Your task to perform on an android device: turn on location history Image 0: 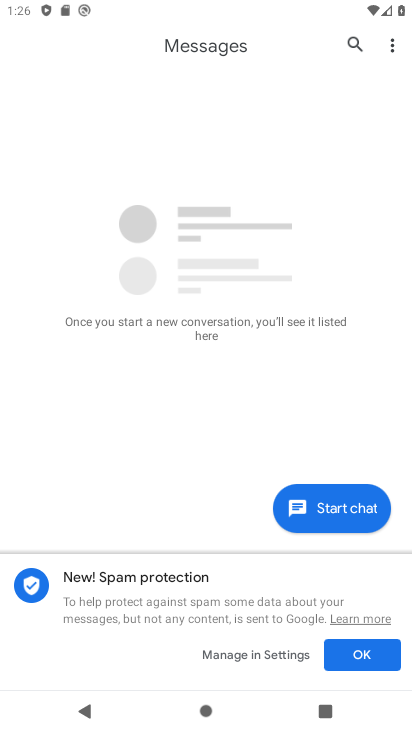
Step 0: press home button
Your task to perform on an android device: turn on location history Image 1: 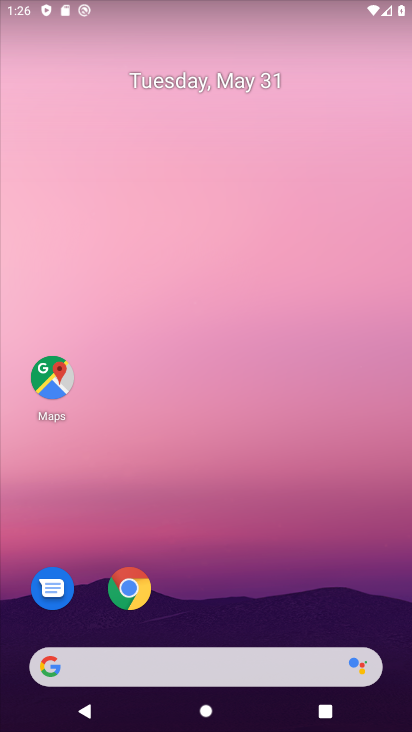
Step 1: drag from (209, 627) to (129, 154)
Your task to perform on an android device: turn on location history Image 2: 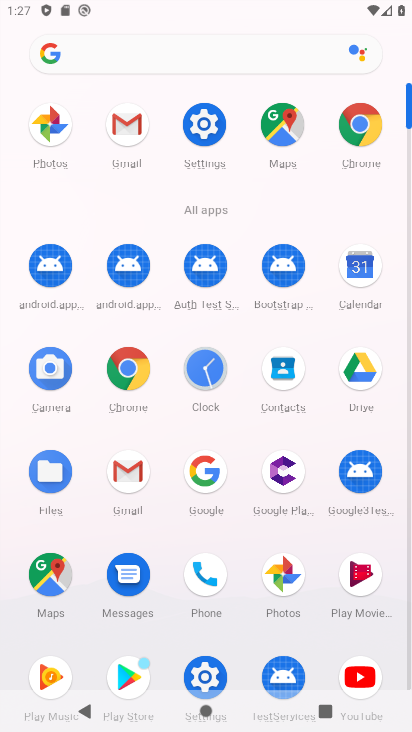
Step 2: click (293, 130)
Your task to perform on an android device: turn on location history Image 3: 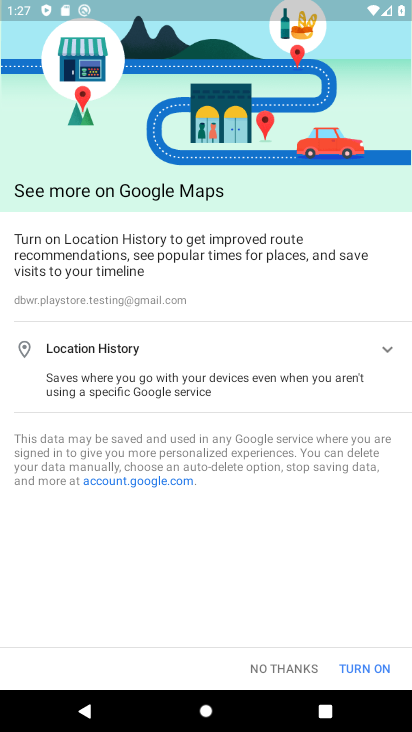
Step 3: click (383, 671)
Your task to perform on an android device: turn on location history Image 4: 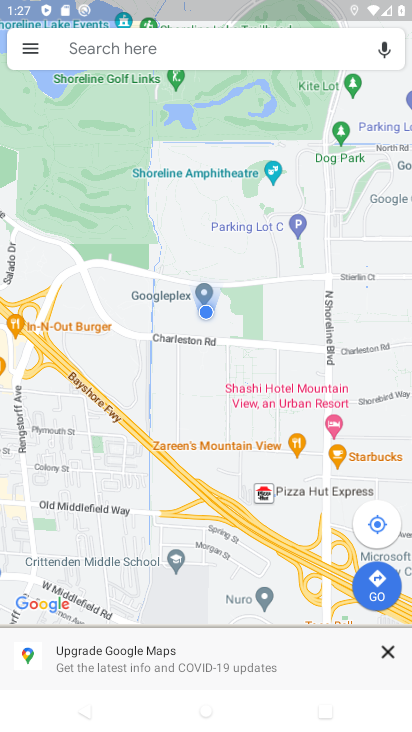
Step 4: click (33, 48)
Your task to perform on an android device: turn on location history Image 5: 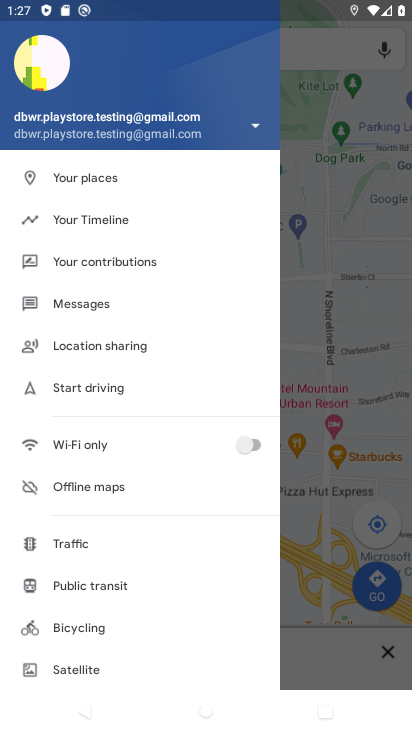
Step 5: click (95, 230)
Your task to perform on an android device: turn on location history Image 6: 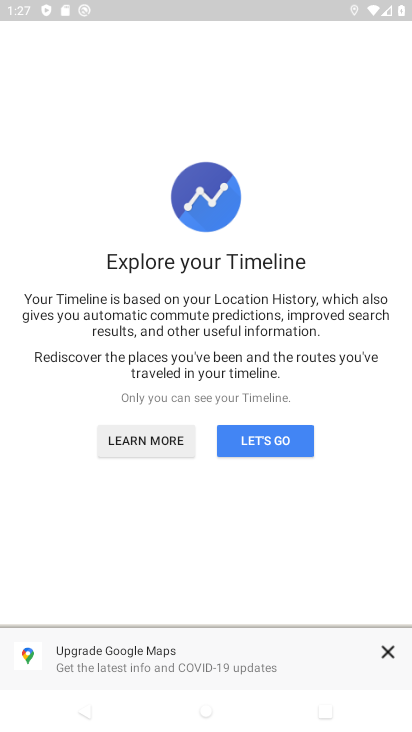
Step 6: click (252, 439)
Your task to perform on an android device: turn on location history Image 7: 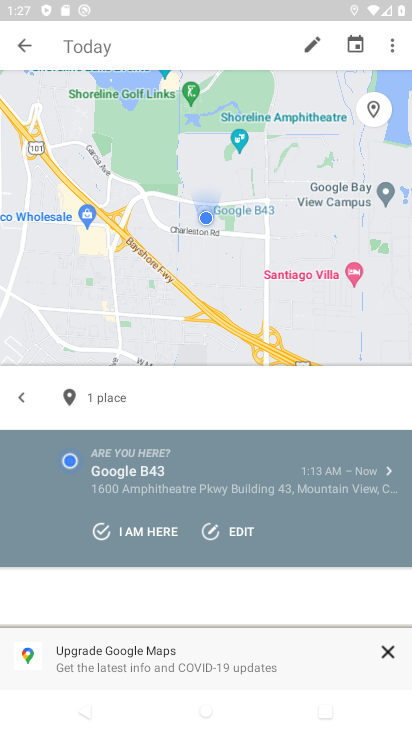
Step 7: click (396, 45)
Your task to perform on an android device: turn on location history Image 8: 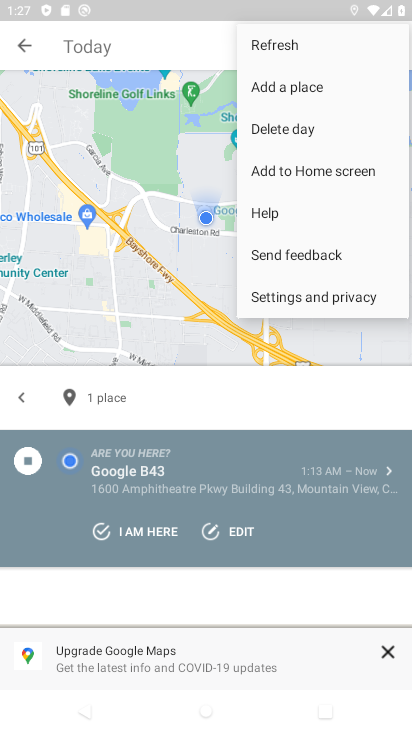
Step 8: click (346, 302)
Your task to perform on an android device: turn on location history Image 9: 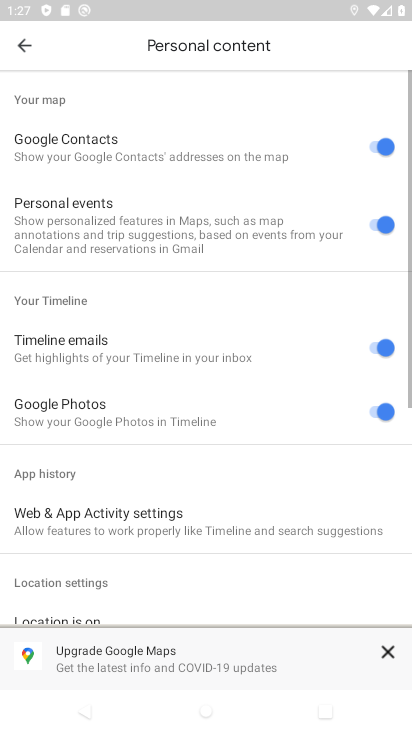
Step 9: task complete